Your task to perform on an android device: delete browsing data in the chrome app Image 0: 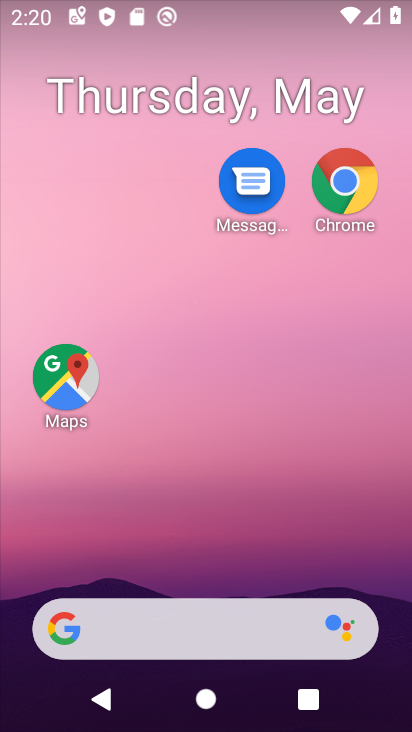
Step 0: drag from (298, 638) to (295, 9)
Your task to perform on an android device: delete browsing data in the chrome app Image 1: 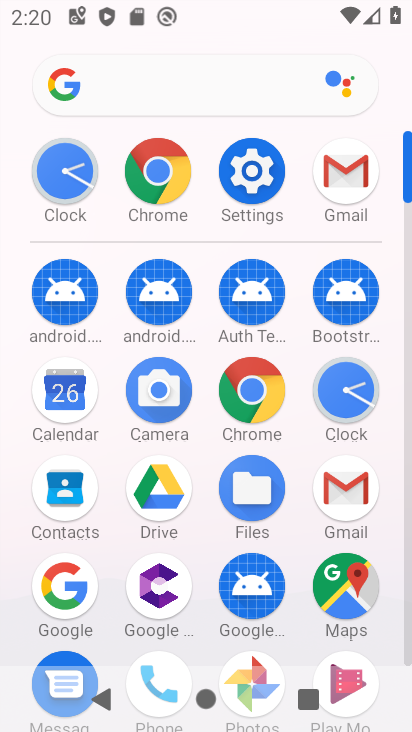
Step 1: click (252, 449)
Your task to perform on an android device: delete browsing data in the chrome app Image 2: 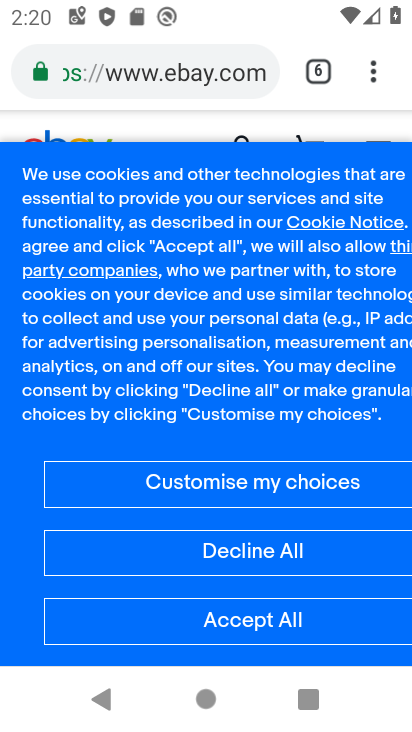
Step 2: click (381, 66)
Your task to perform on an android device: delete browsing data in the chrome app Image 3: 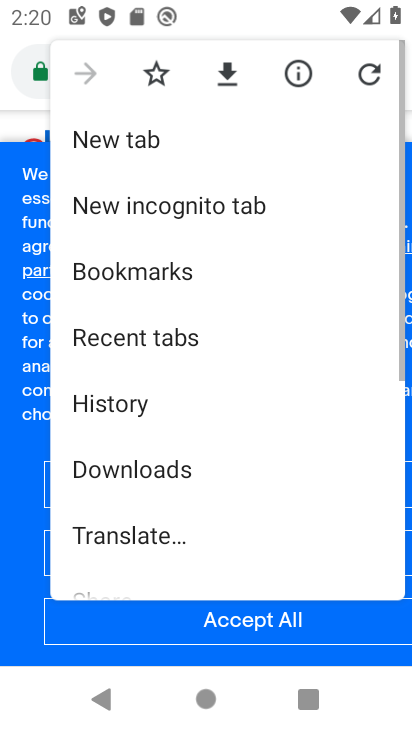
Step 3: drag from (298, 550) to (281, 80)
Your task to perform on an android device: delete browsing data in the chrome app Image 4: 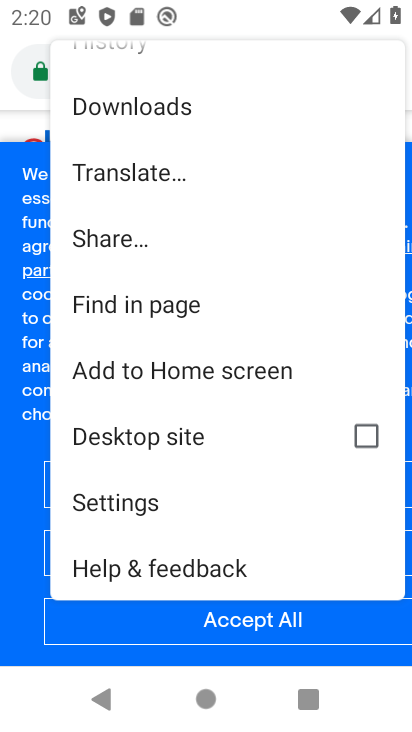
Step 4: click (142, 485)
Your task to perform on an android device: delete browsing data in the chrome app Image 5: 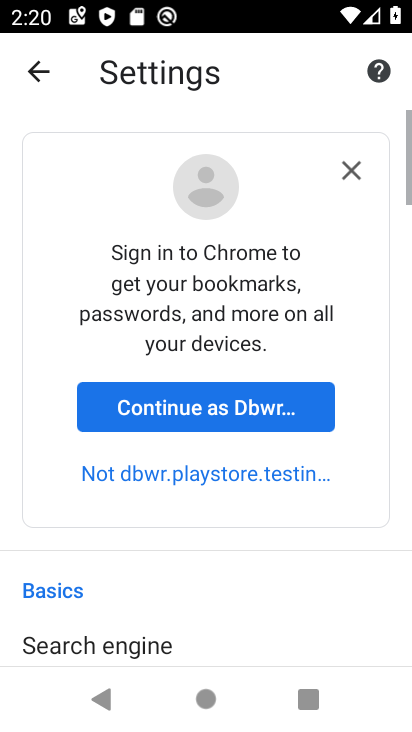
Step 5: drag from (205, 525) to (238, 63)
Your task to perform on an android device: delete browsing data in the chrome app Image 6: 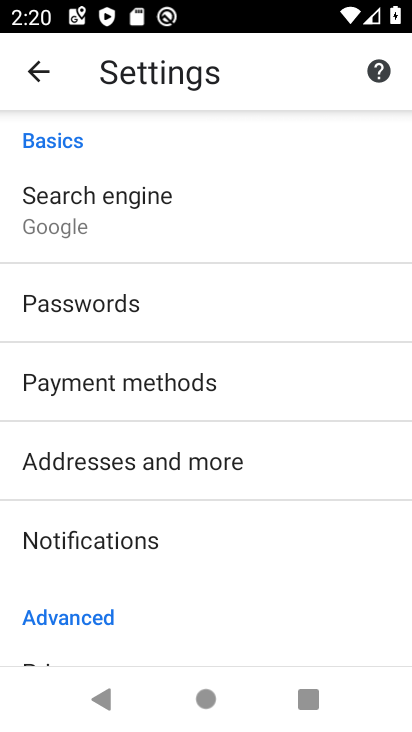
Step 6: drag from (284, 621) to (308, 342)
Your task to perform on an android device: delete browsing data in the chrome app Image 7: 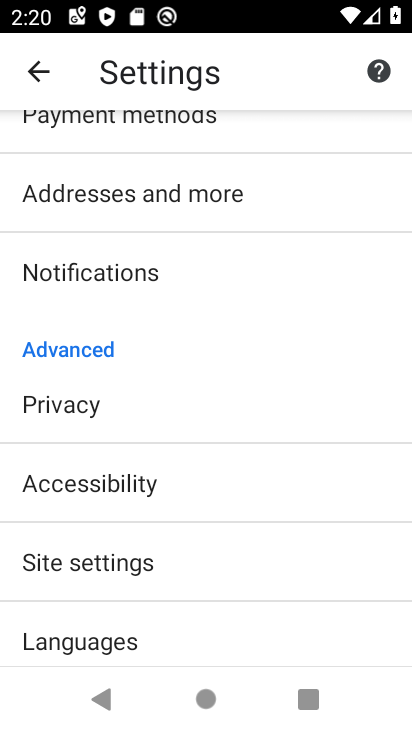
Step 7: click (117, 423)
Your task to perform on an android device: delete browsing data in the chrome app Image 8: 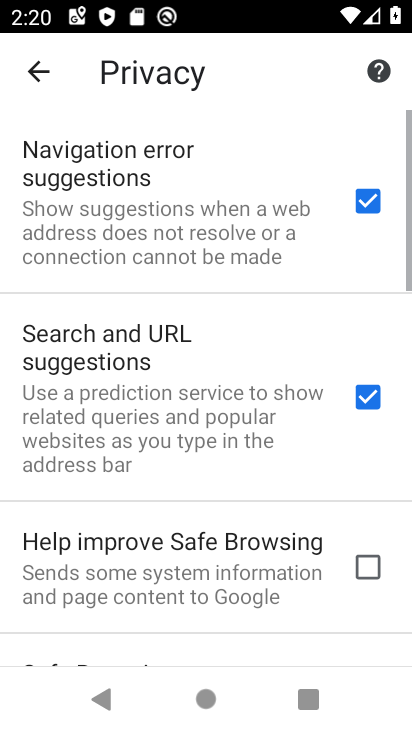
Step 8: drag from (260, 612) to (313, 135)
Your task to perform on an android device: delete browsing data in the chrome app Image 9: 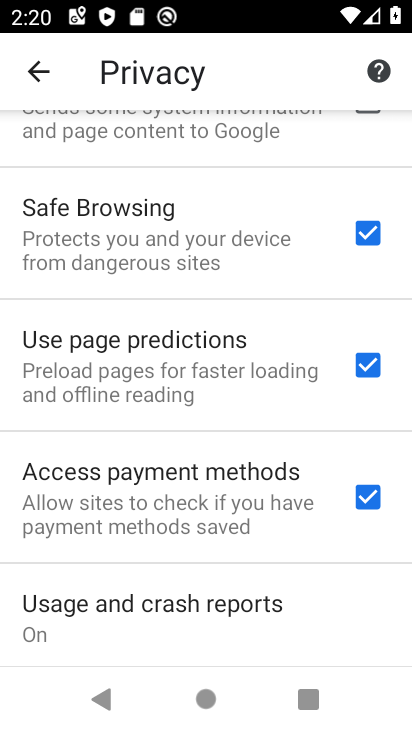
Step 9: drag from (238, 544) to (279, 48)
Your task to perform on an android device: delete browsing data in the chrome app Image 10: 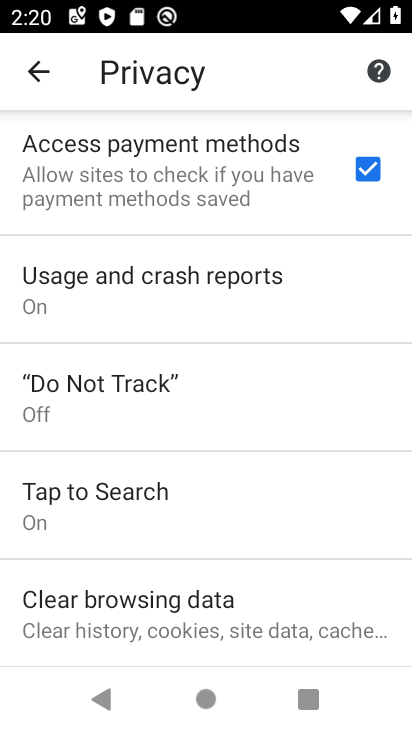
Step 10: click (217, 605)
Your task to perform on an android device: delete browsing data in the chrome app Image 11: 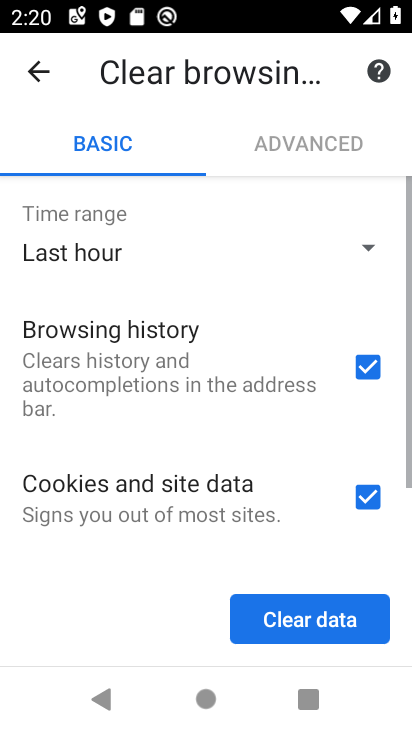
Step 11: click (337, 618)
Your task to perform on an android device: delete browsing data in the chrome app Image 12: 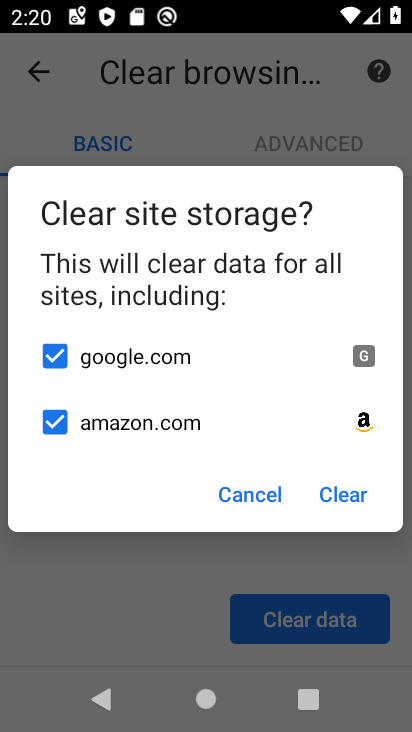
Step 12: click (335, 494)
Your task to perform on an android device: delete browsing data in the chrome app Image 13: 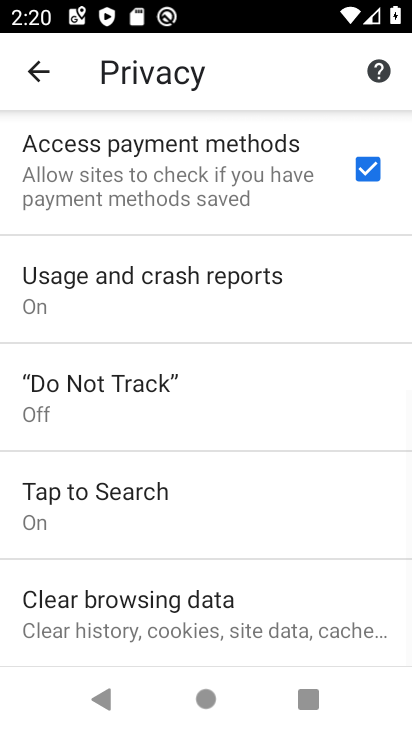
Step 13: task complete